Your task to perform on an android device: change the clock style Image 0: 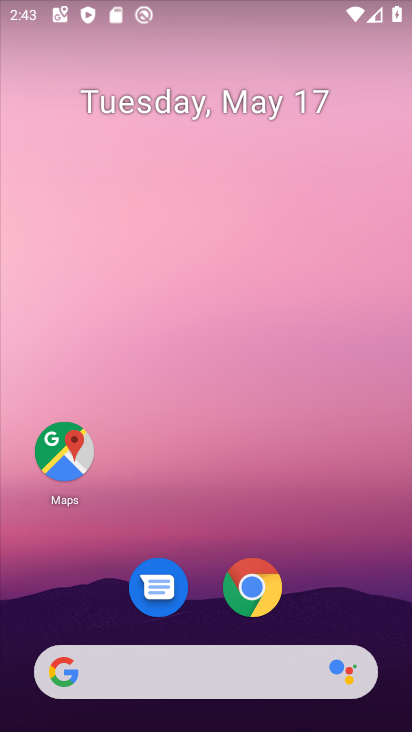
Step 0: drag from (333, 673) to (379, 57)
Your task to perform on an android device: change the clock style Image 1: 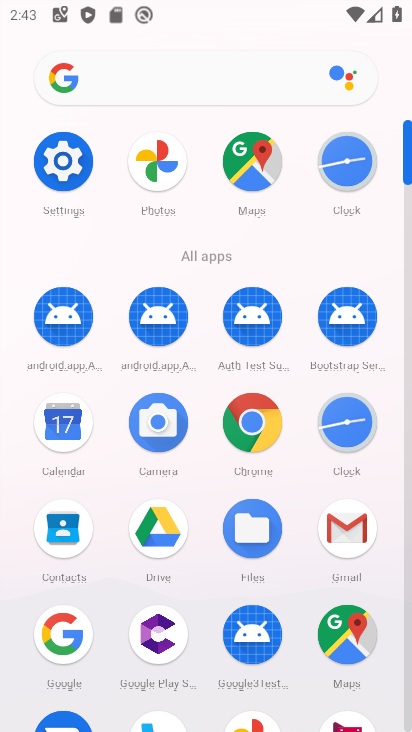
Step 1: click (356, 428)
Your task to perform on an android device: change the clock style Image 2: 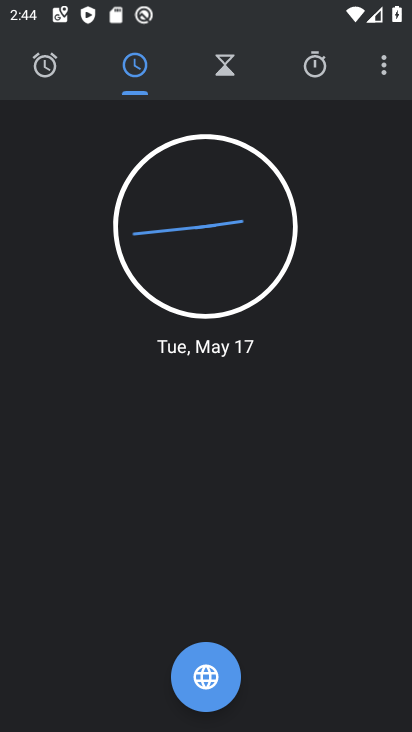
Step 2: click (389, 64)
Your task to perform on an android device: change the clock style Image 3: 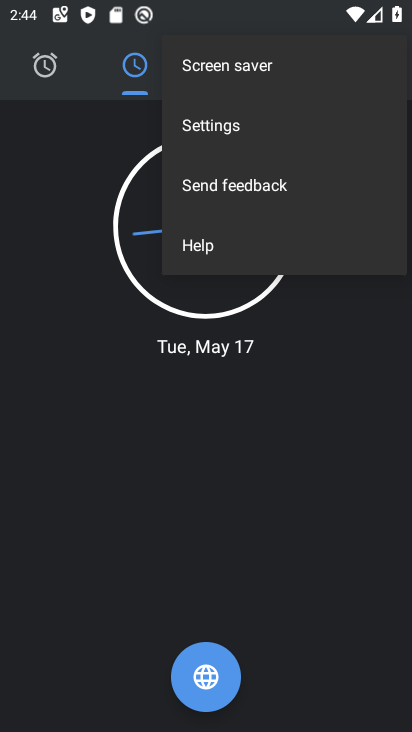
Step 3: click (225, 128)
Your task to perform on an android device: change the clock style Image 4: 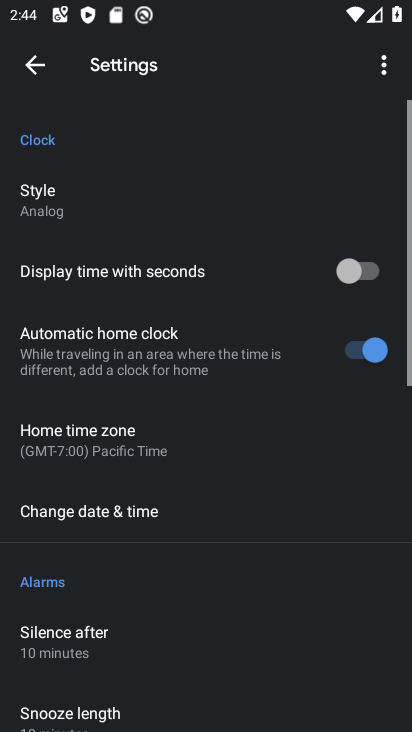
Step 4: click (166, 214)
Your task to perform on an android device: change the clock style Image 5: 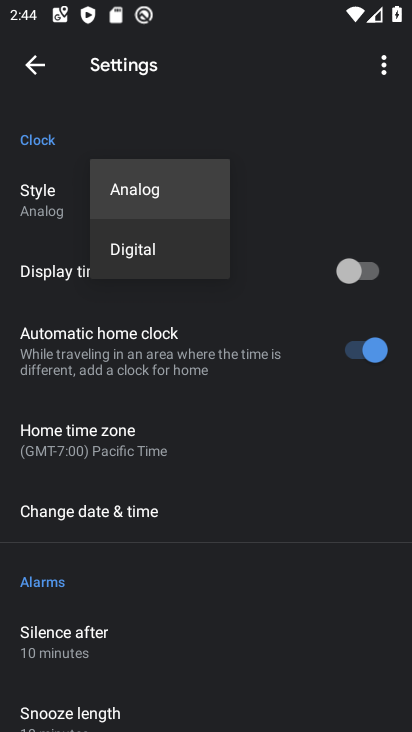
Step 5: click (153, 242)
Your task to perform on an android device: change the clock style Image 6: 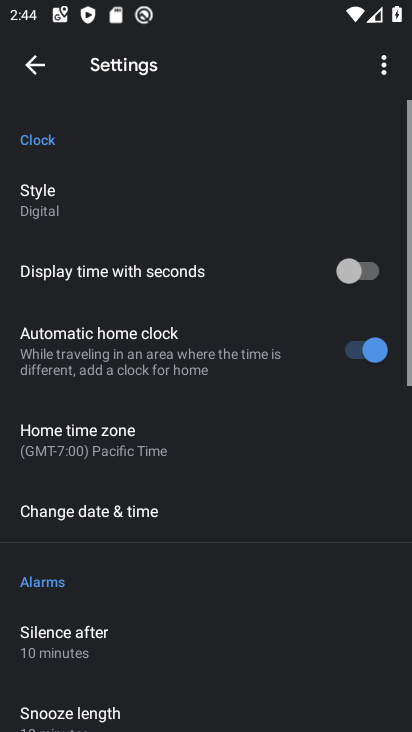
Step 6: task complete